Your task to perform on an android device: choose inbox layout in the gmail app Image 0: 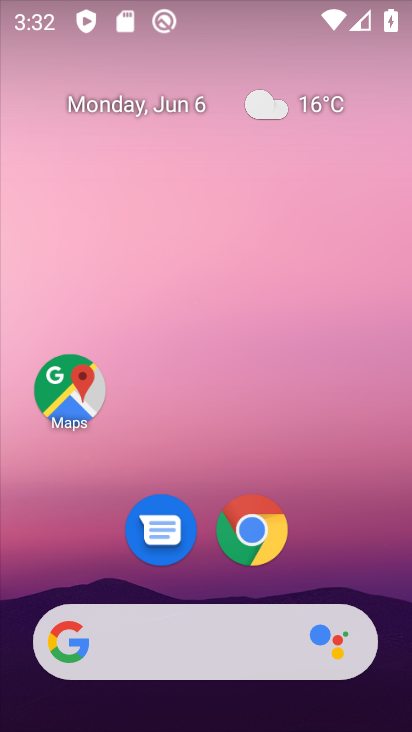
Step 0: drag from (357, 520) to (362, 94)
Your task to perform on an android device: choose inbox layout in the gmail app Image 1: 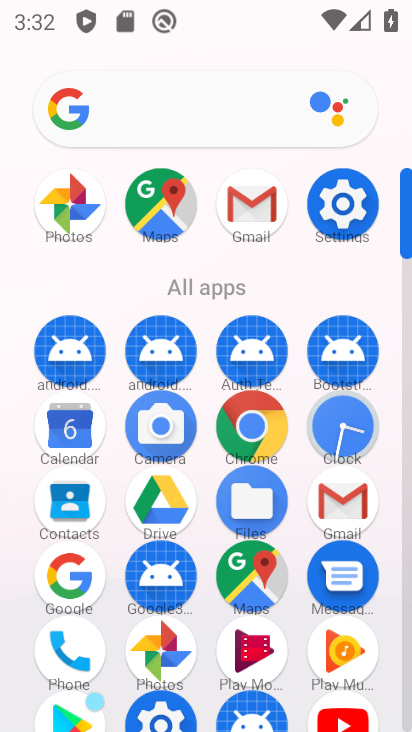
Step 1: click (329, 520)
Your task to perform on an android device: choose inbox layout in the gmail app Image 2: 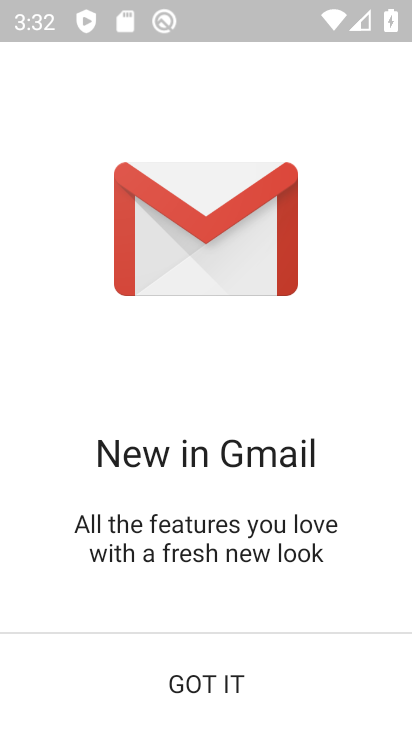
Step 2: click (182, 700)
Your task to perform on an android device: choose inbox layout in the gmail app Image 3: 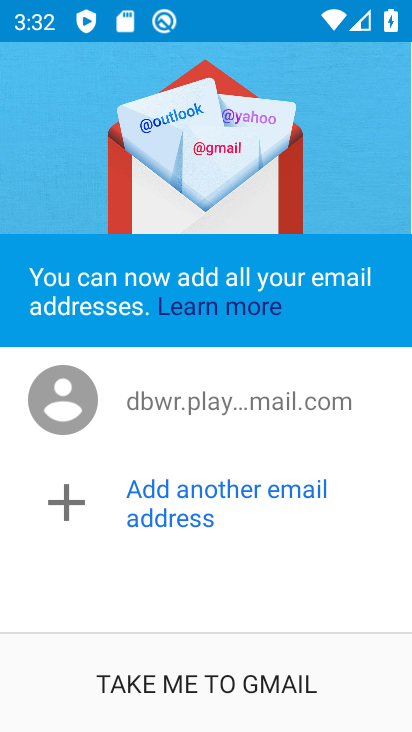
Step 3: click (209, 700)
Your task to perform on an android device: choose inbox layout in the gmail app Image 4: 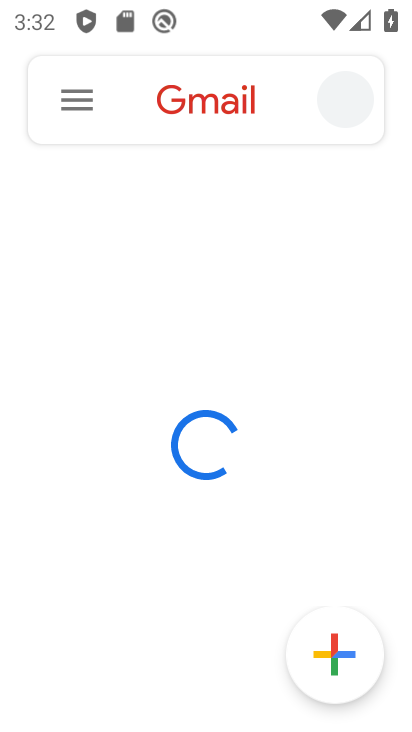
Step 4: click (74, 82)
Your task to perform on an android device: choose inbox layout in the gmail app Image 5: 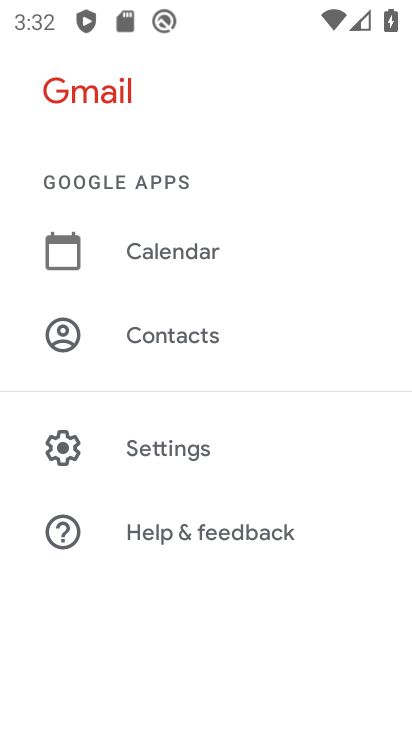
Step 5: click (184, 454)
Your task to perform on an android device: choose inbox layout in the gmail app Image 6: 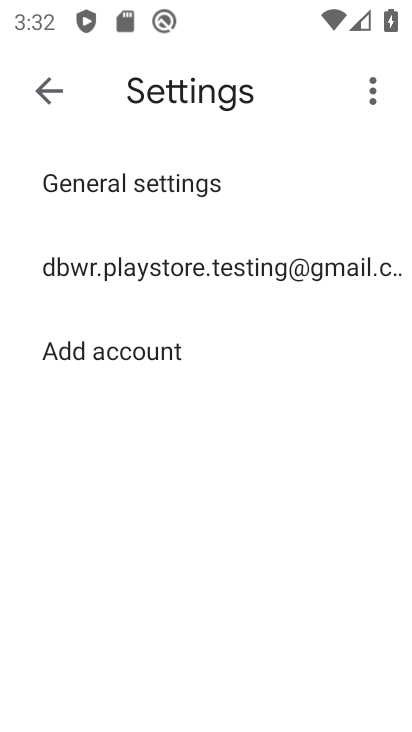
Step 6: click (189, 290)
Your task to perform on an android device: choose inbox layout in the gmail app Image 7: 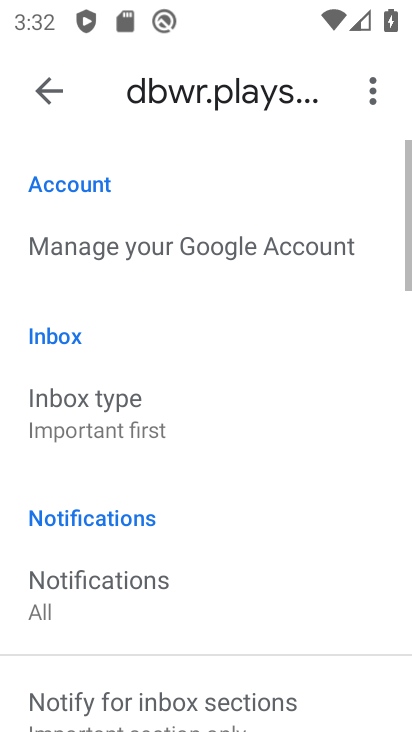
Step 7: click (245, 399)
Your task to perform on an android device: choose inbox layout in the gmail app Image 8: 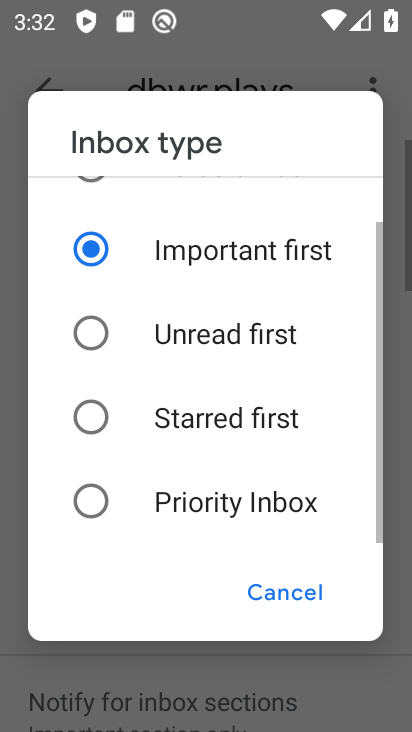
Step 8: task complete